Your task to perform on an android device: turn on improve location accuracy Image 0: 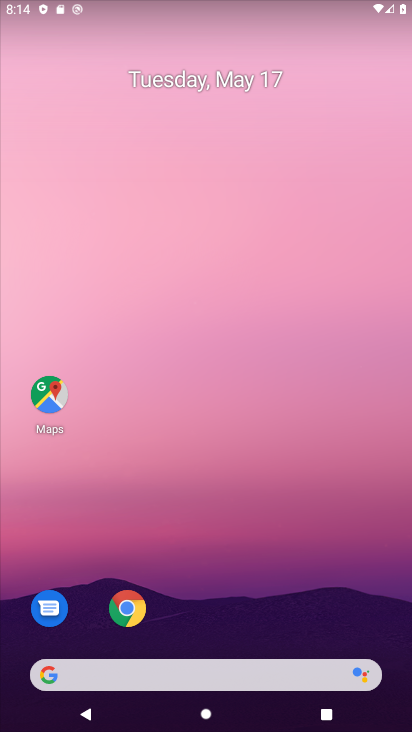
Step 0: drag from (356, 609) to (353, 193)
Your task to perform on an android device: turn on improve location accuracy Image 1: 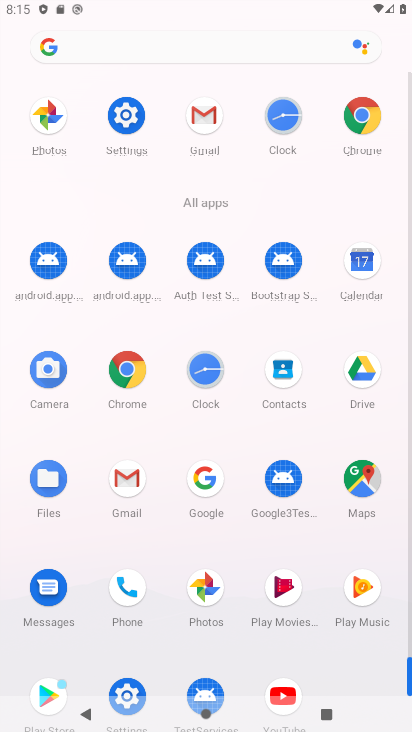
Step 1: click (119, 110)
Your task to perform on an android device: turn on improve location accuracy Image 2: 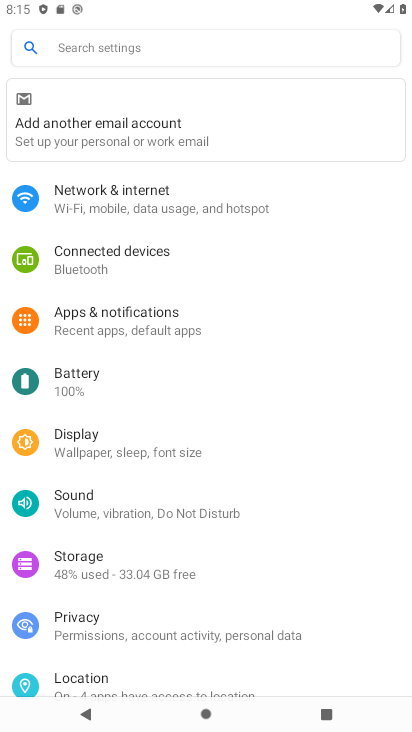
Step 2: drag from (359, 579) to (357, 446)
Your task to perform on an android device: turn on improve location accuracy Image 3: 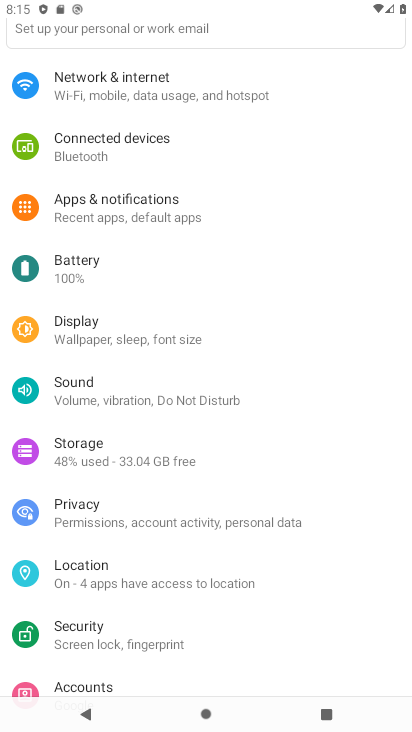
Step 3: drag from (347, 610) to (347, 475)
Your task to perform on an android device: turn on improve location accuracy Image 4: 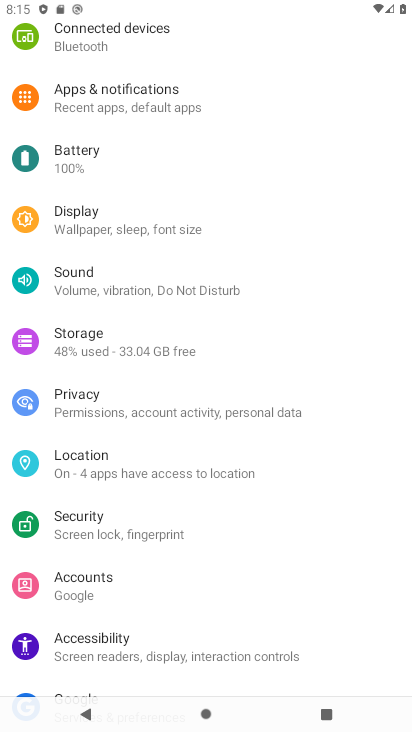
Step 4: drag from (340, 657) to (343, 505)
Your task to perform on an android device: turn on improve location accuracy Image 5: 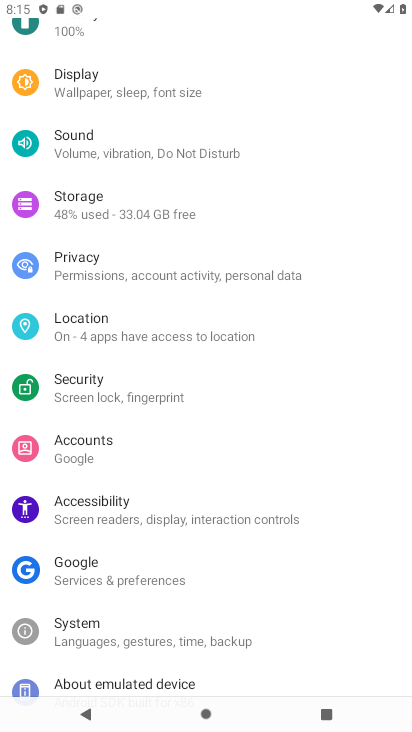
Step 5: drag from (343, 640) to (342, 494)
Your task to perform on an android device: turn on improve location accuracy Image 6: 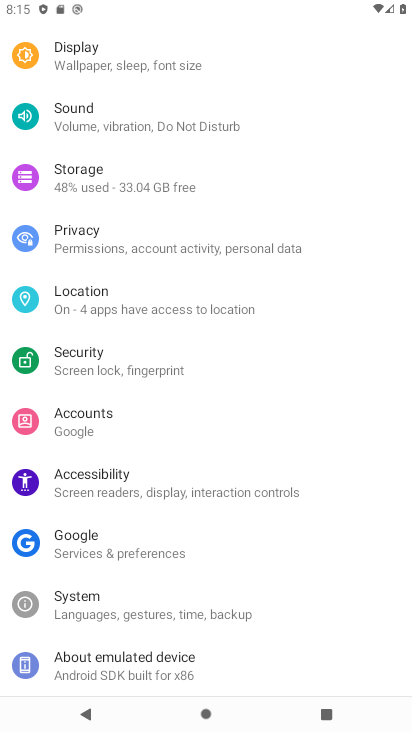
Step 6: drag from (344, 357) to (334, 475)
Your task to perform on an android device: turn on improve location accuracy Image 7: 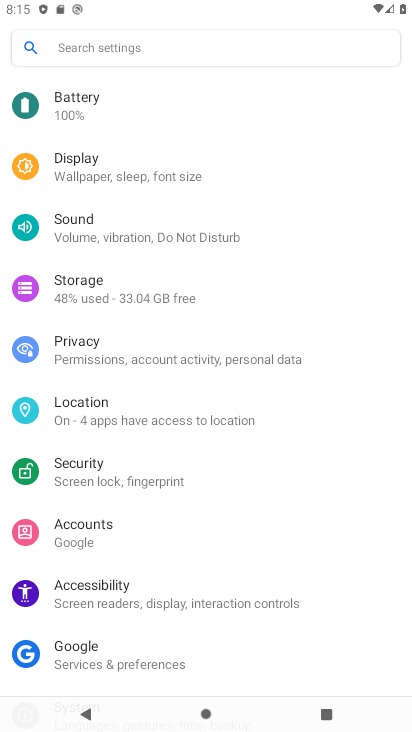
Step 7: drag from (345, 312) to (330, 457)
Your task to perform on an android device: turn on improve location accuracy Image 8: 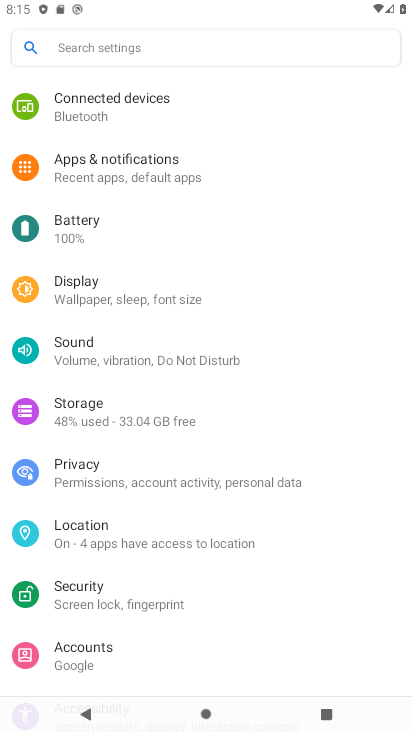
Step 8: drag from (357, 280) to (342, 430)
Your task to perform on an android device: turn on improve location accuracy Image 9: 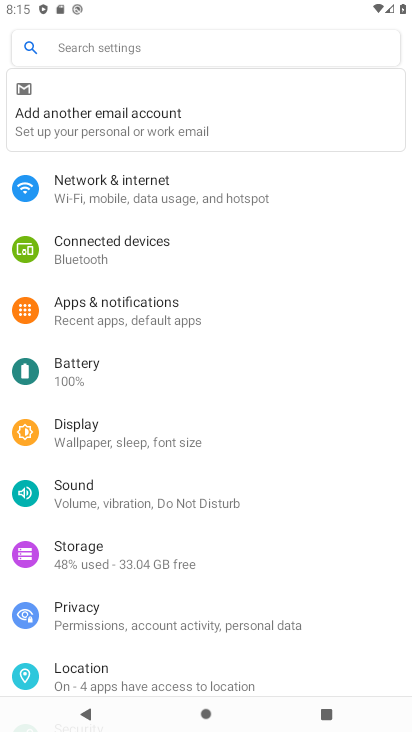
Step 9: drag from (340, 286) to (340, 385)
Your task to perform on an android device: turn on improve location accuracy Image 10: 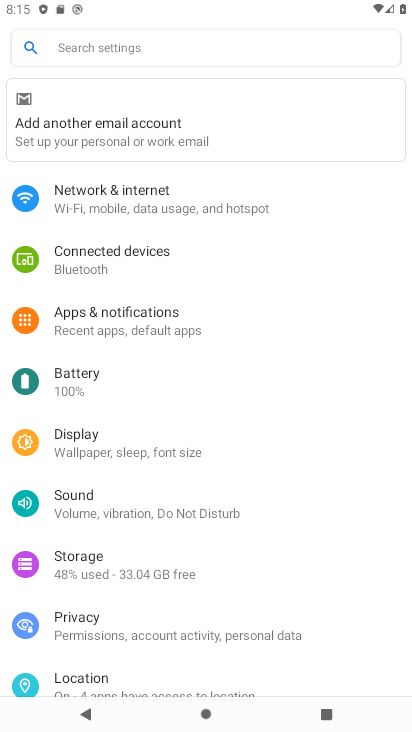
Step 10: drag from (244, 560) to (259, 433)
Your task to perform on an android device: turn on improve location accuracy Image 11: 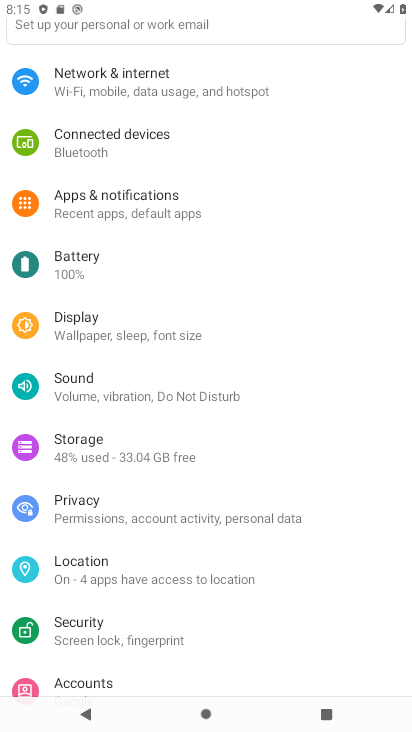
Step 11: drag from (288, 595) to (302, 437)
Your task to perform on an android device: turn on improve location accuracy Image 12: 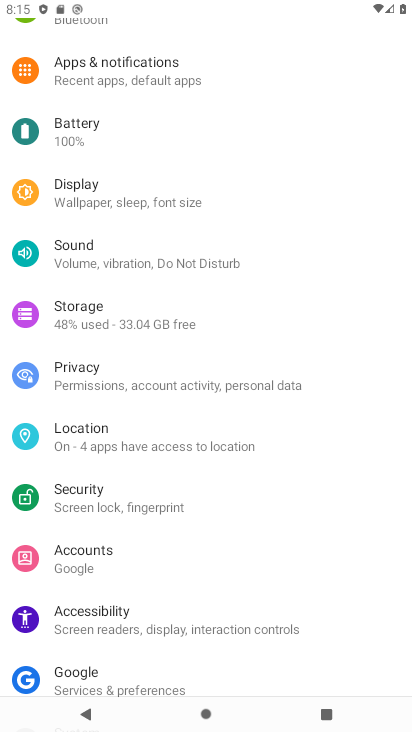
Step 12: click (219, 443)
Your task to perform on an android device: turn on improve location accuracy Image 13: 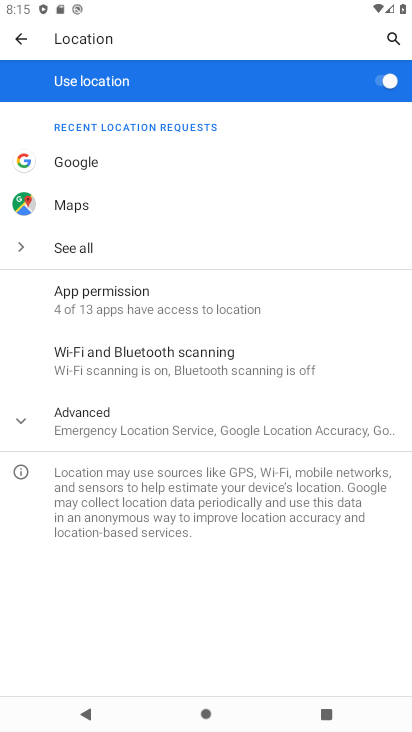
Step 13: click (228, 426)
Your task to perform on an android device: turn on improve location accuracy Image 14: 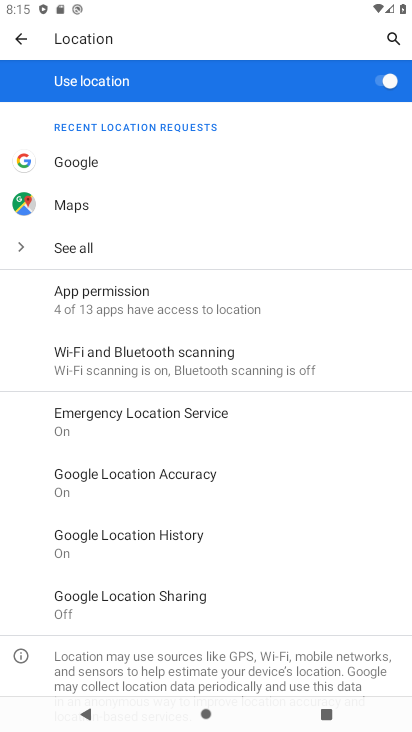
Step 14: click (188, 478)
Your task to perform on an android device: turn on improve location accuracy Image 15: 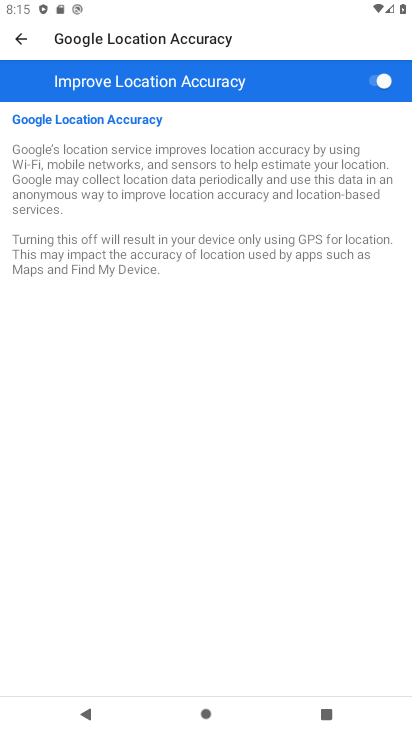
Step 15: task complete